Your task to perform on an android device: manage bookmarks in the chrome app Image 0: 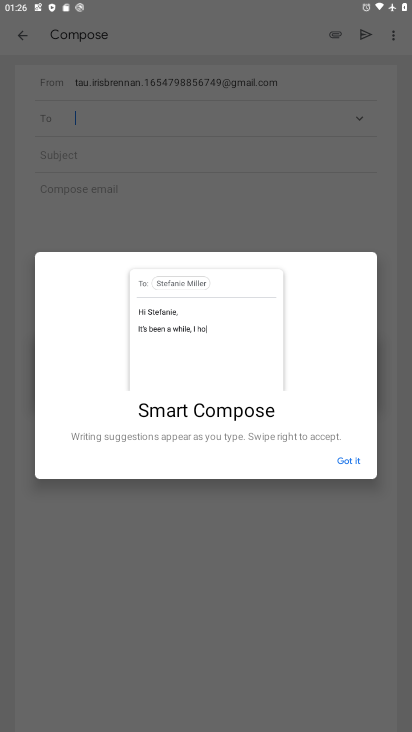
Step 0: press home button
Your task to perform on an android device: manage bookmarks in the chrome app Image 1: 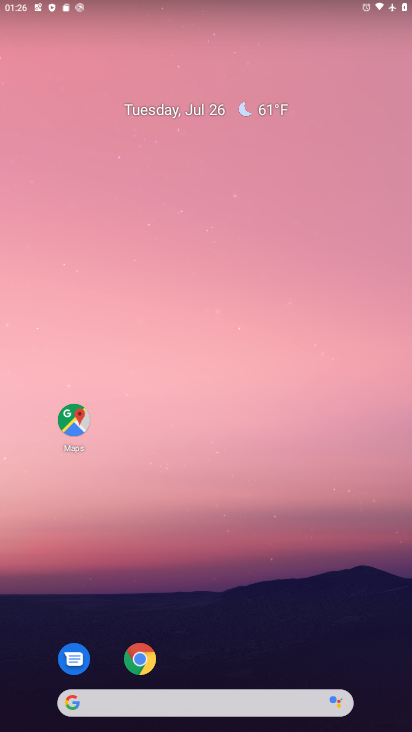
Step 1: drag from (321, 585) to (212, 29)
Your task to perform on an android device: manage bookmarks in the chrome app Image 2: 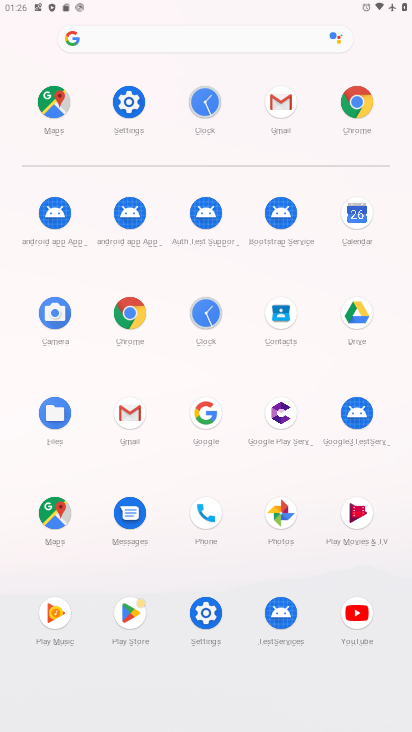
Step 2: click (130, 305)
Your task to perform on an android device: manage bookmarks in the chrome app Image 3: 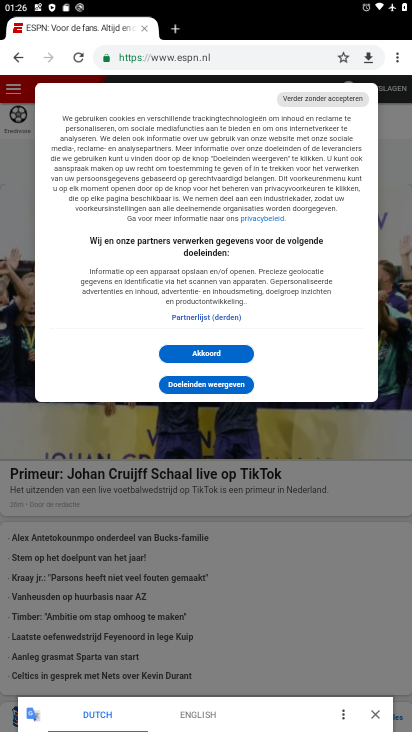
Step 3: drag from (398, 49) to (291, 115)
Your task to perform on an android device: manage bookmarks in the chrome app Image 4: 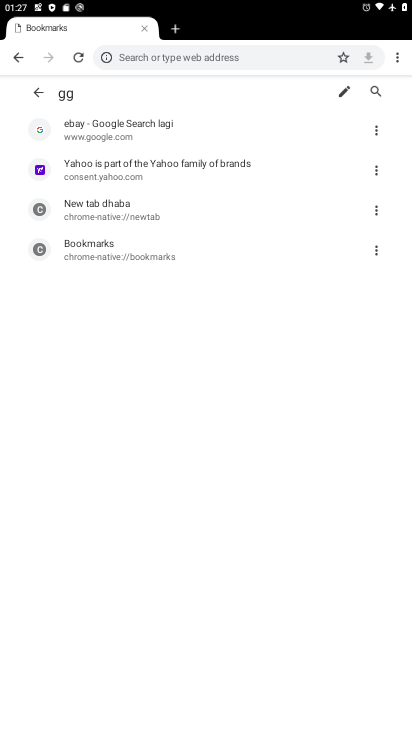
Step 4: click (374, 168)
Your task to perform on an android device: manage bookmarks in the chrome app Image 5: 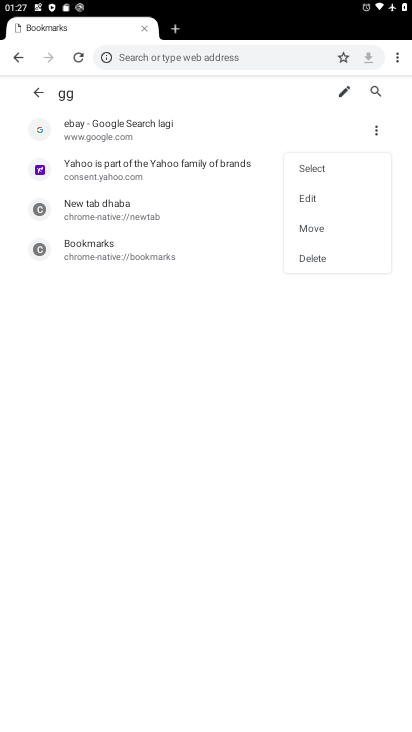
Step 5: click (315, 259)
Your task to perform on an android device: manage bookmarks in the chrome app Image 6: 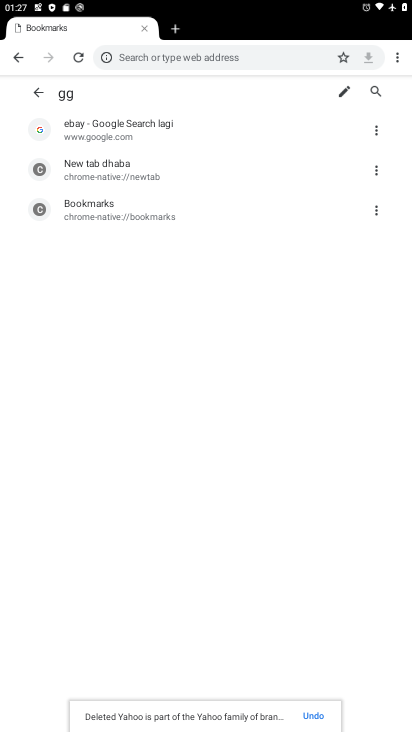
Step 6: task complete